Your task to perform on an android device: Go to accessibility settings Image 0: 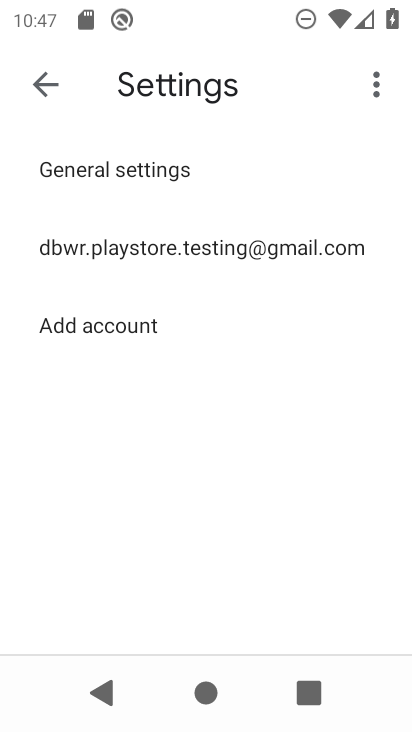
Step 0: press back button
Your task to perform on an android device: Go to accessibility settings Image 1: 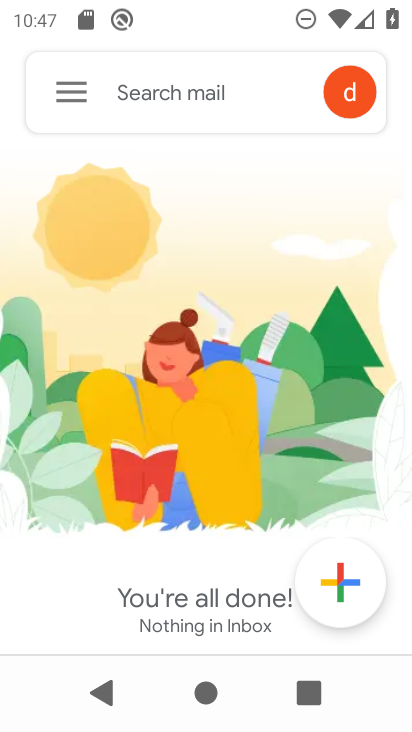
Step 1: press home button
Your task to perform on an android device: Go to accessibility settings Image 2: 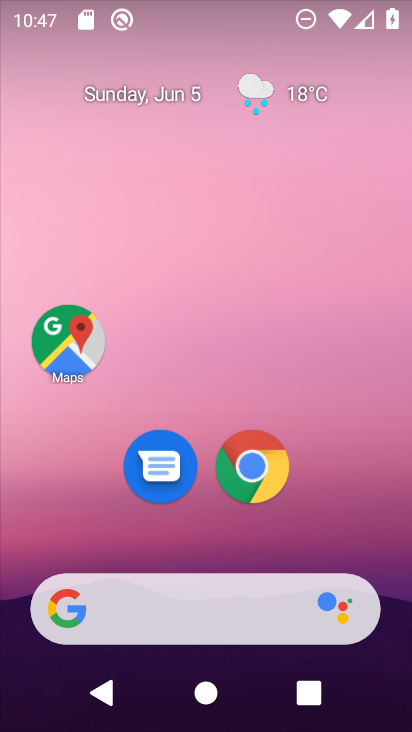
Step 2: drag from (368, 512) to (208, 6)
Your task to perform on an android device: Go to accessibility settings Image 3: 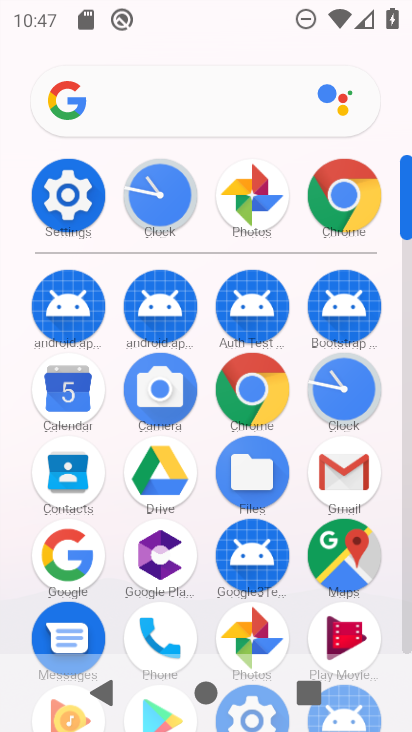
Step 3: click (64, 204)
Your task to perform on an android device: Go to accessibility settings Image 4: 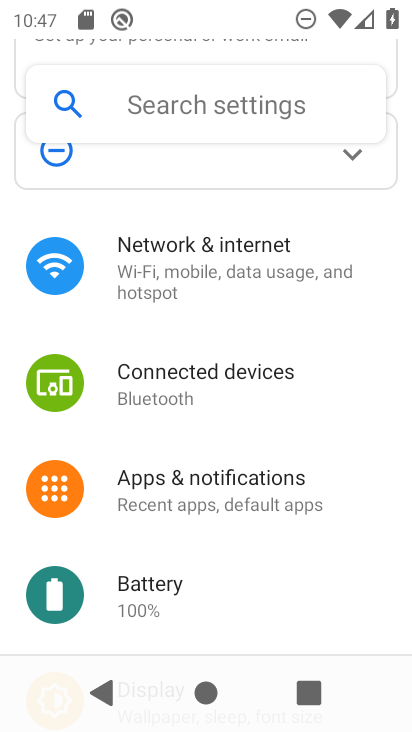
Step 4: drag from (351, 578) to (312, 111)
Your task to perform on an android device: Go to accessibility settings Image 5: 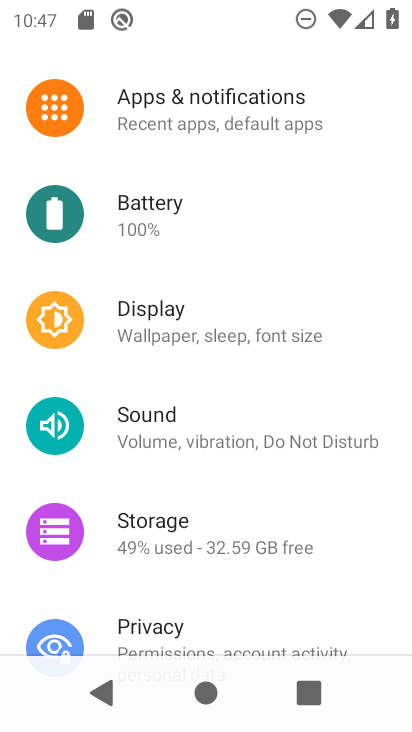
Step 5: drag from (298, 551) to (297, 126)
Your task to perform on an android device: Go to accessibility settings Image 6: 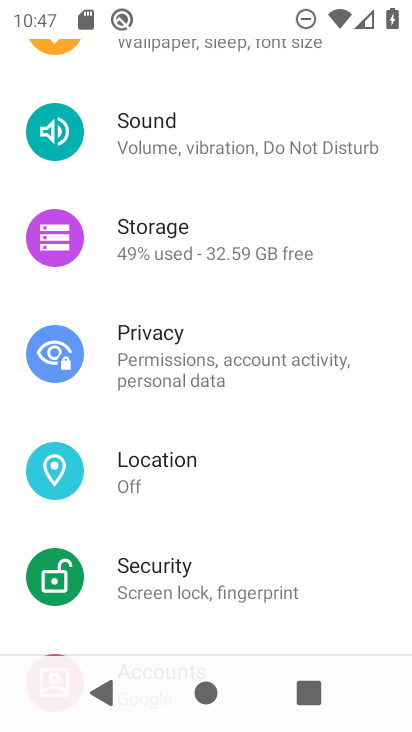
Step 6: drag from (266, 534) to (287, 100)
Your task to perform on an android device: Go to accessibility settings Image 7: 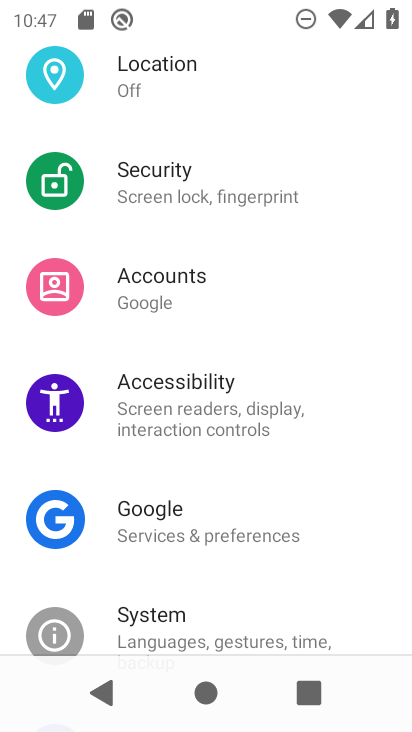
Step 7: click (212, 406)
Your task to perform on an android device: Go to accessibility settings Image 8: 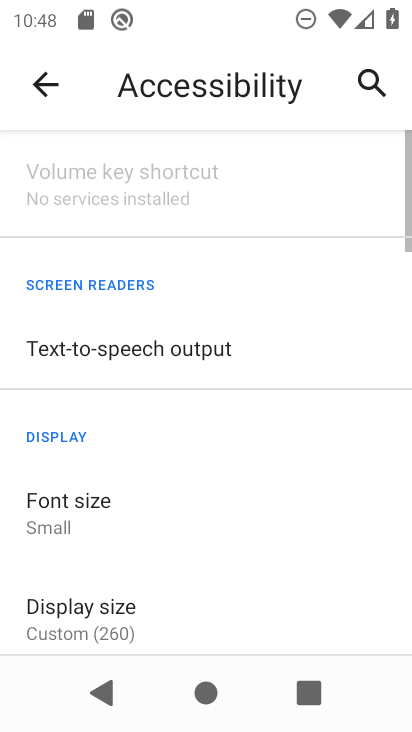
Step 8: task complete